Your task to perform on an android device: change timer sound Image 0: 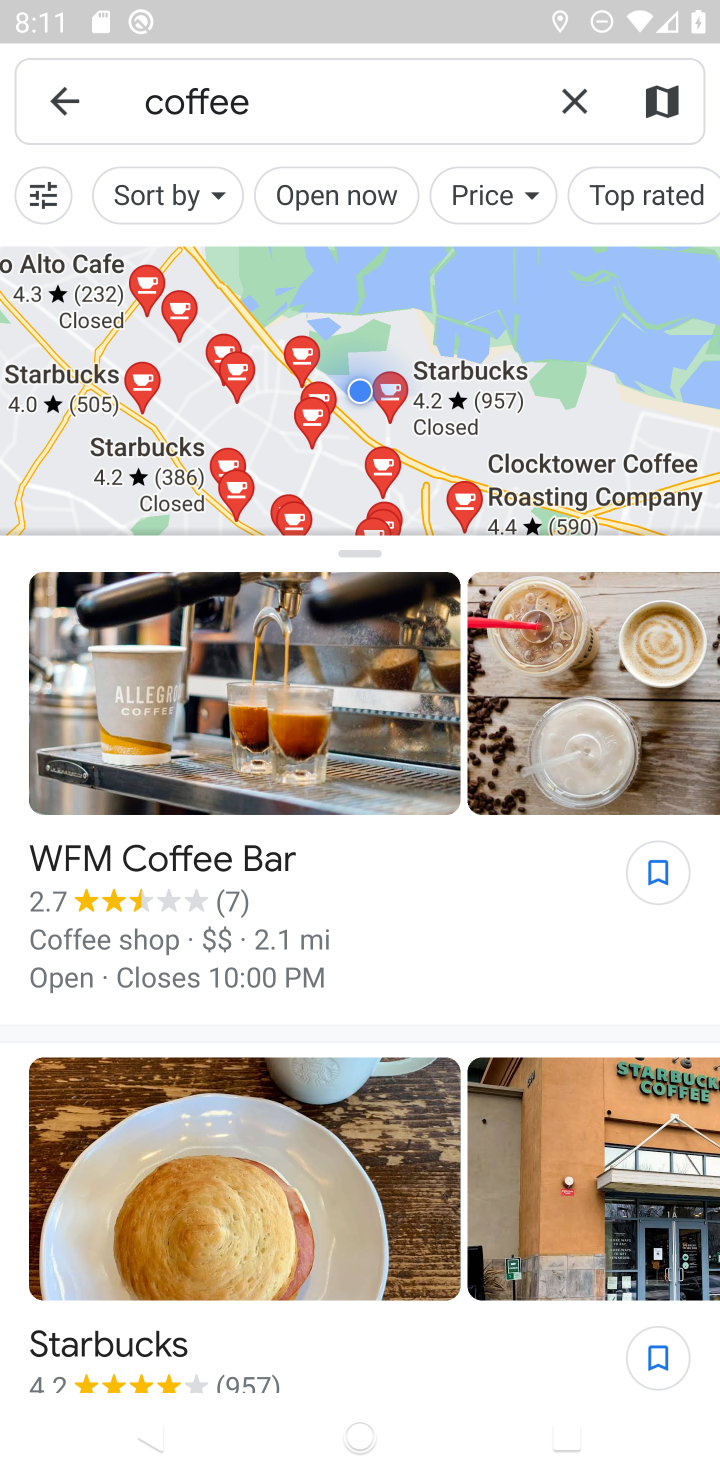
Step 0: press home button
Your task to perform on an android device: change timer sound Image 1: 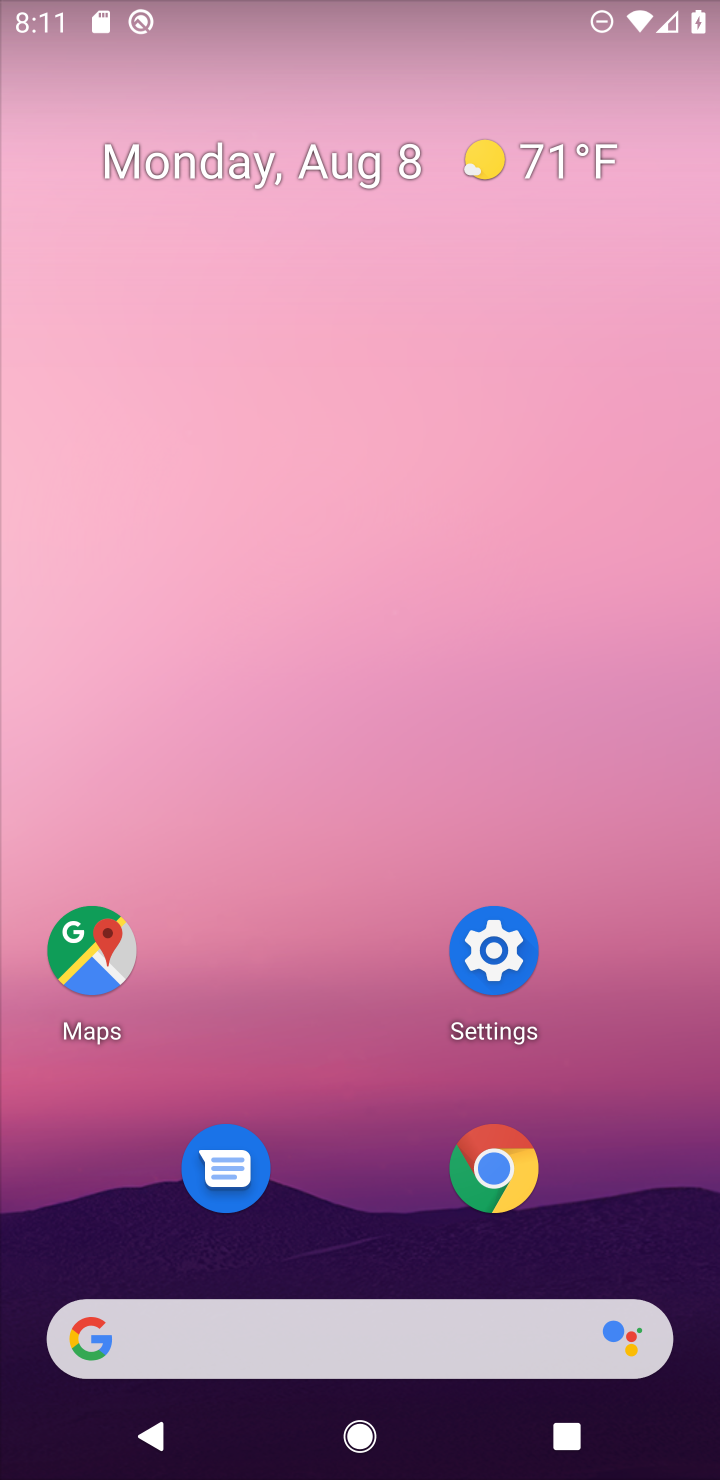
Step 1: drag from (332, 1321) to (524, 65)
Your task to perform on an android device: change timer sound Image 2: 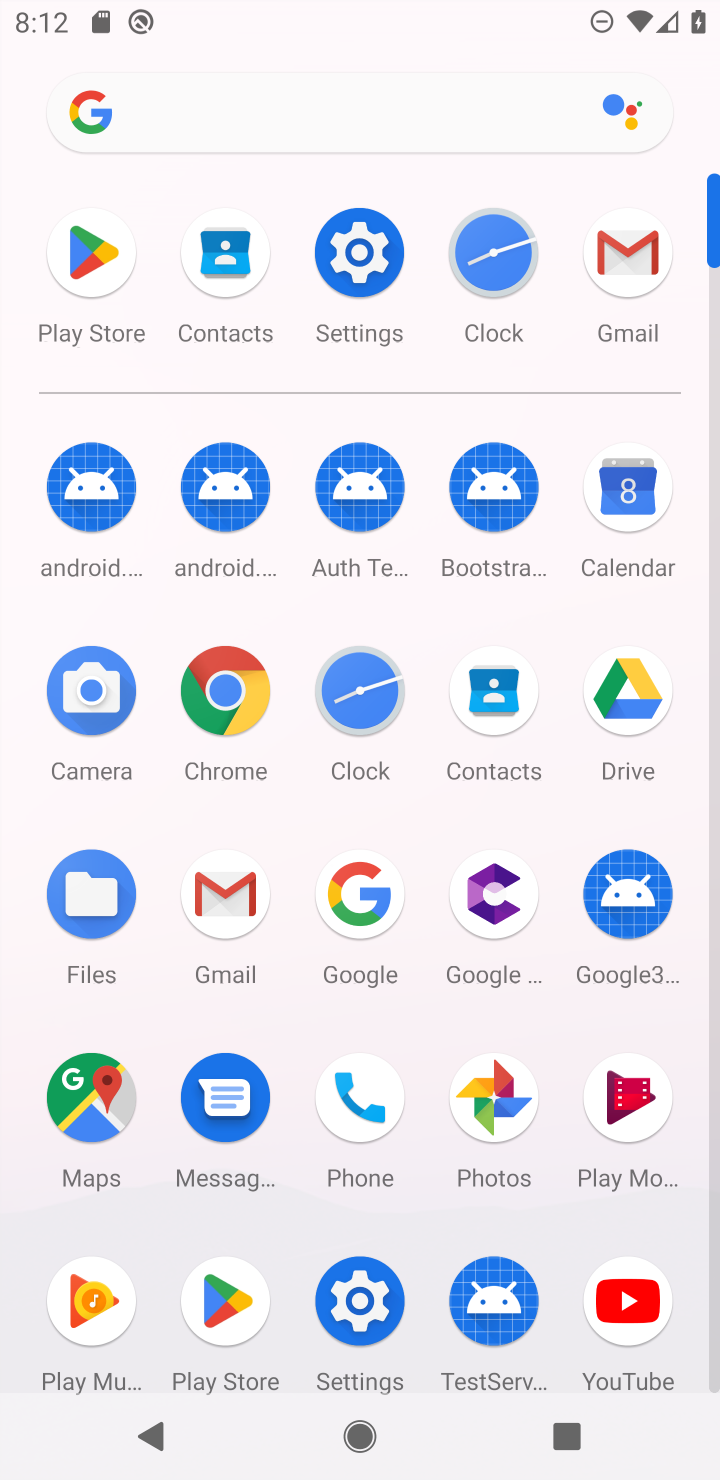
Step 2: click (361, 703)
Your task to perform on an android device: change timer sound Image 3: 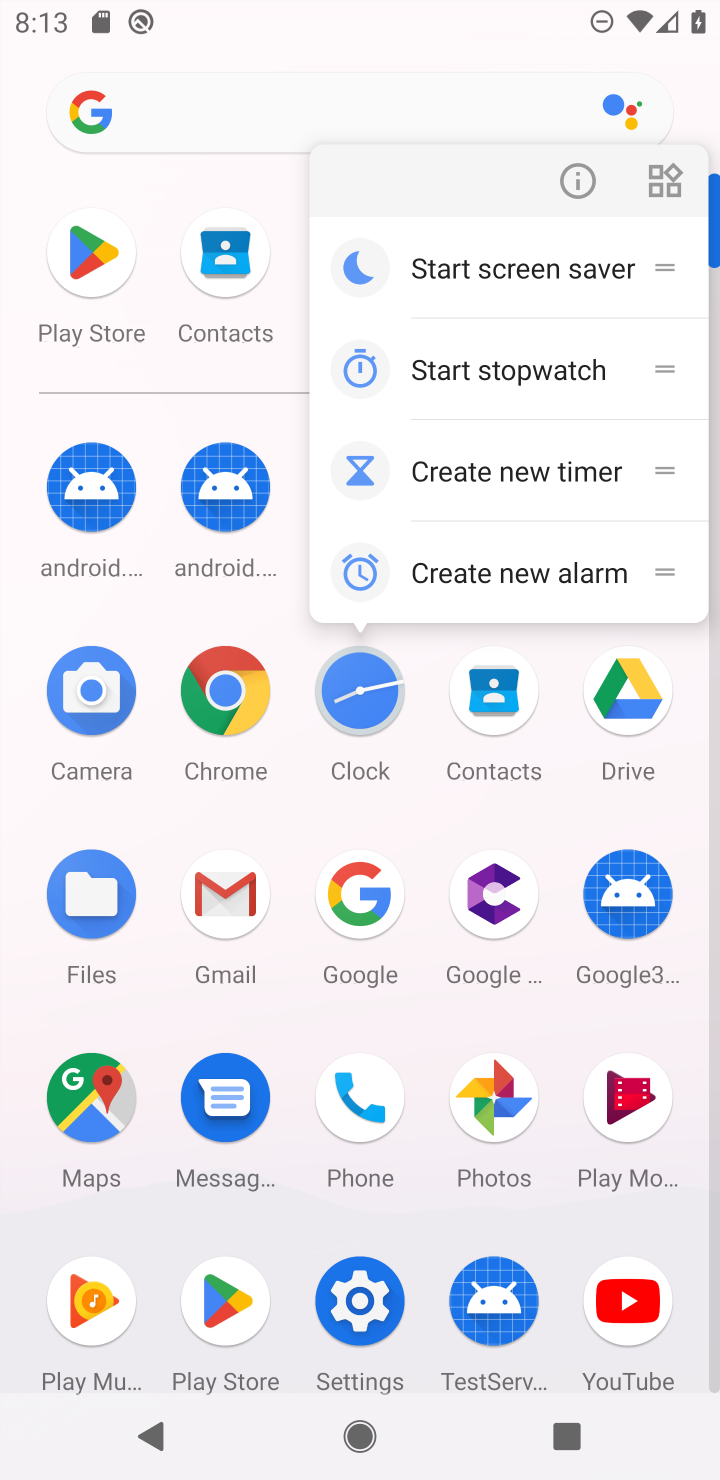
Step 3: click (358, 704)
Your task to perform on an android device: change timer sound Image 4: 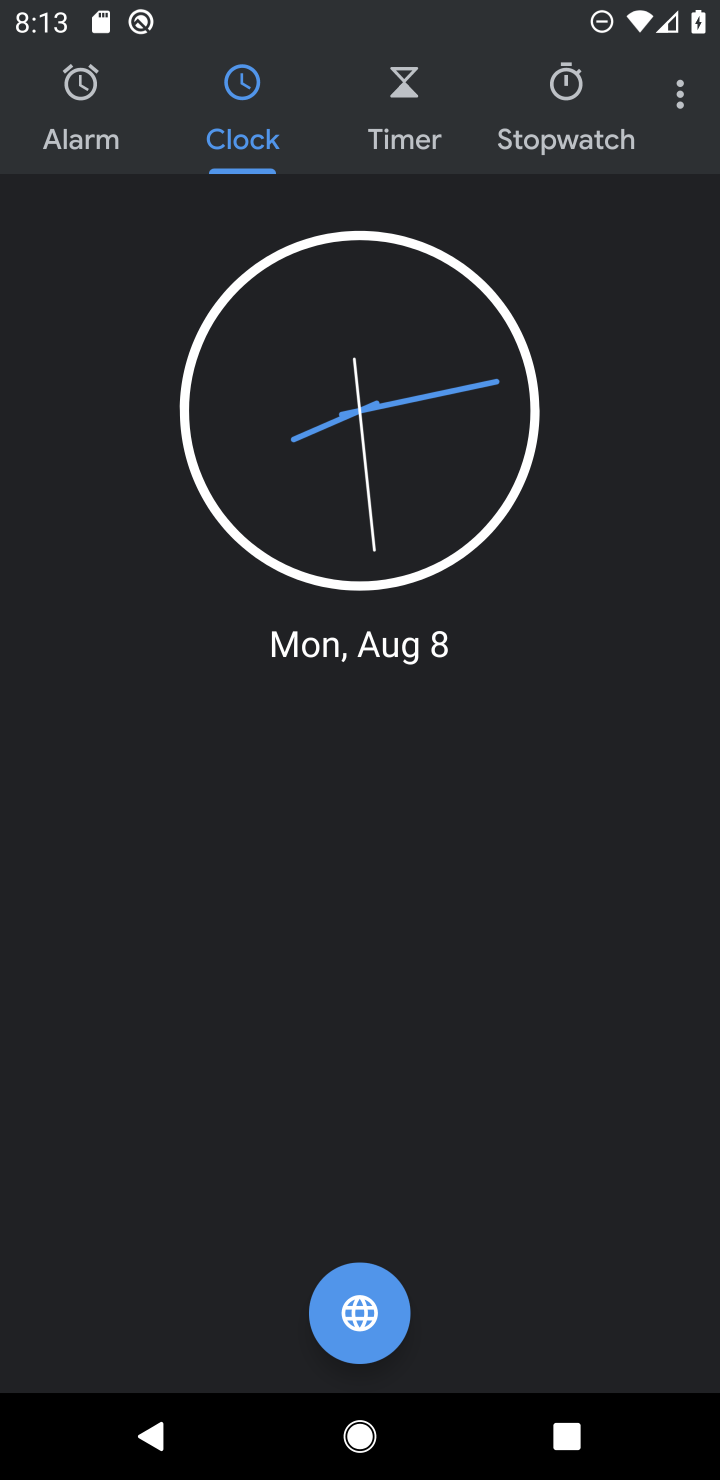
Step 4: click (678, 90)
Your task to perform on an android device: change timer sound Image 5: 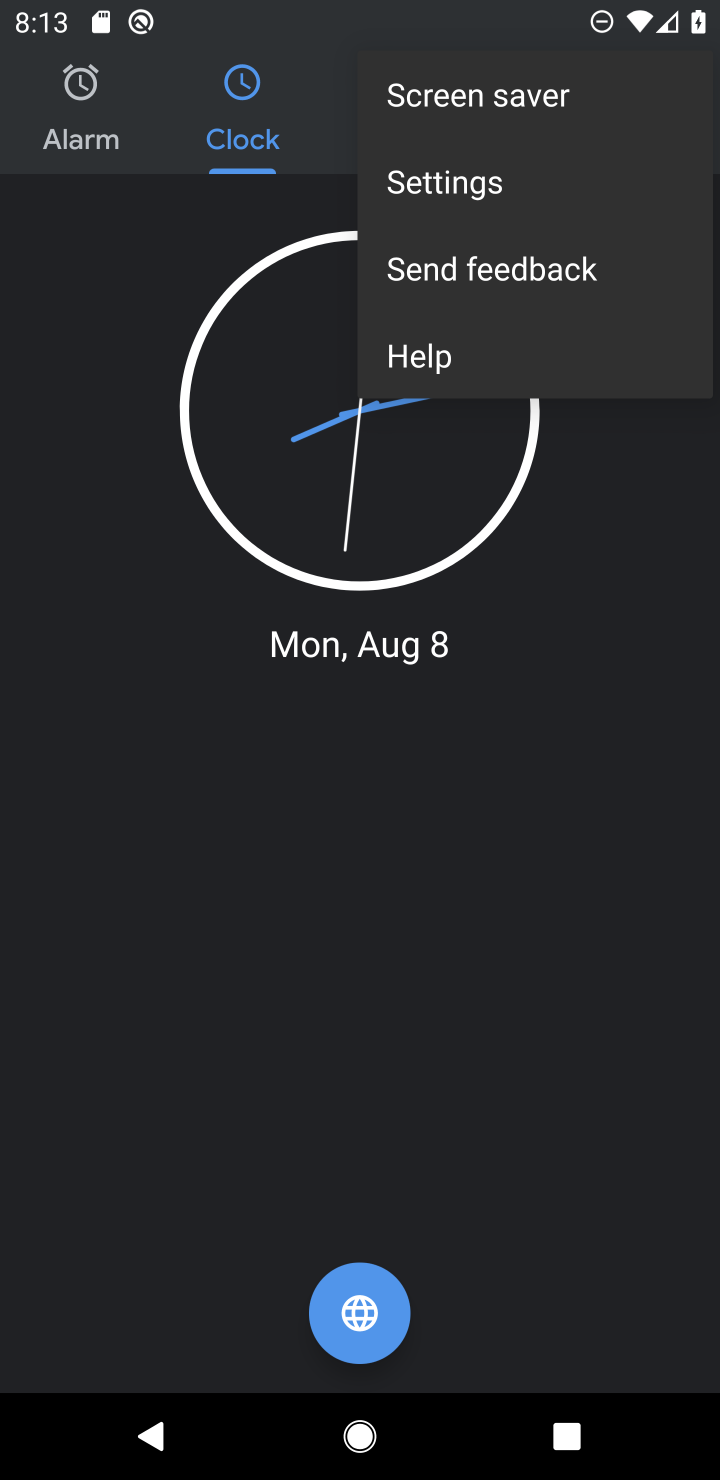
Step 5: click (485, 183)
Your task to perform on an android device: change timer sound Image 6: 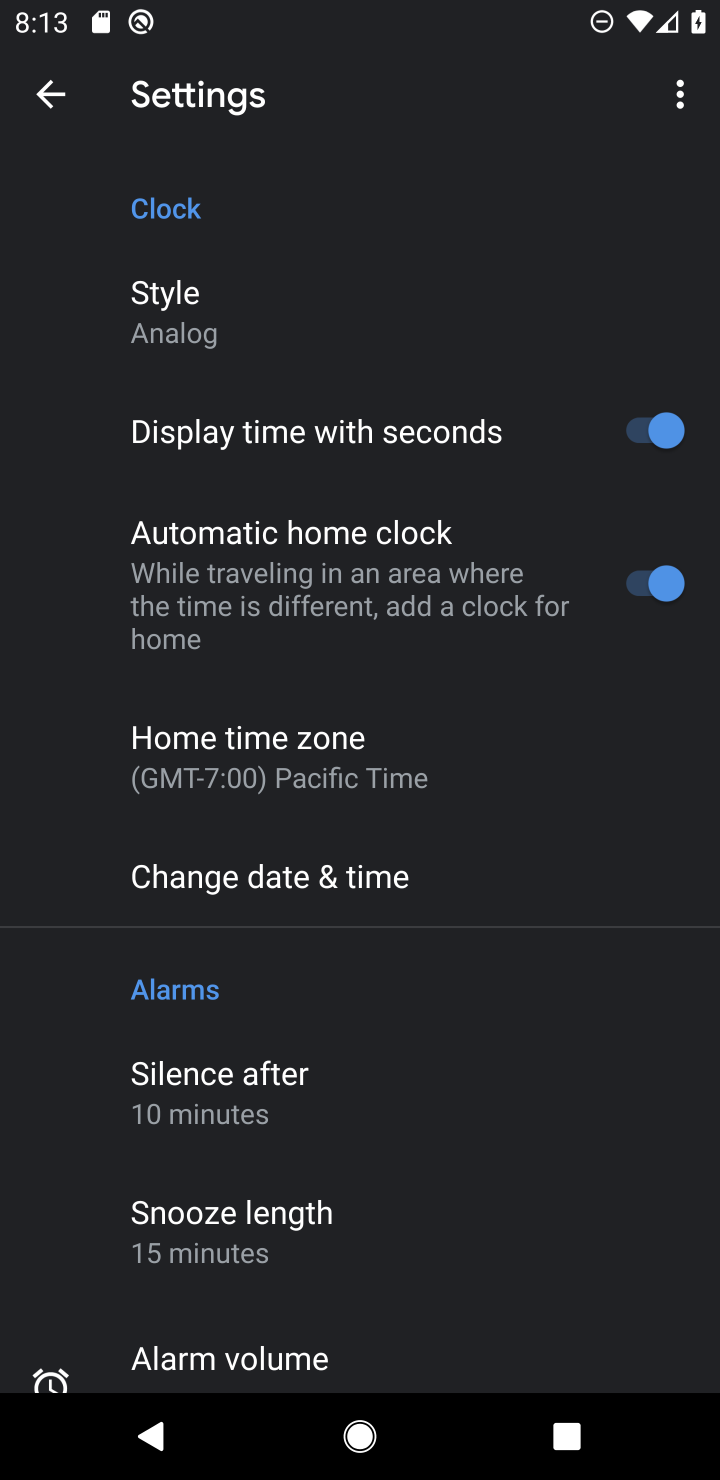
Step 6: drag from (340, 1255) to (550, 253)
Your task to perform on an android device: change timer sound Image 7: 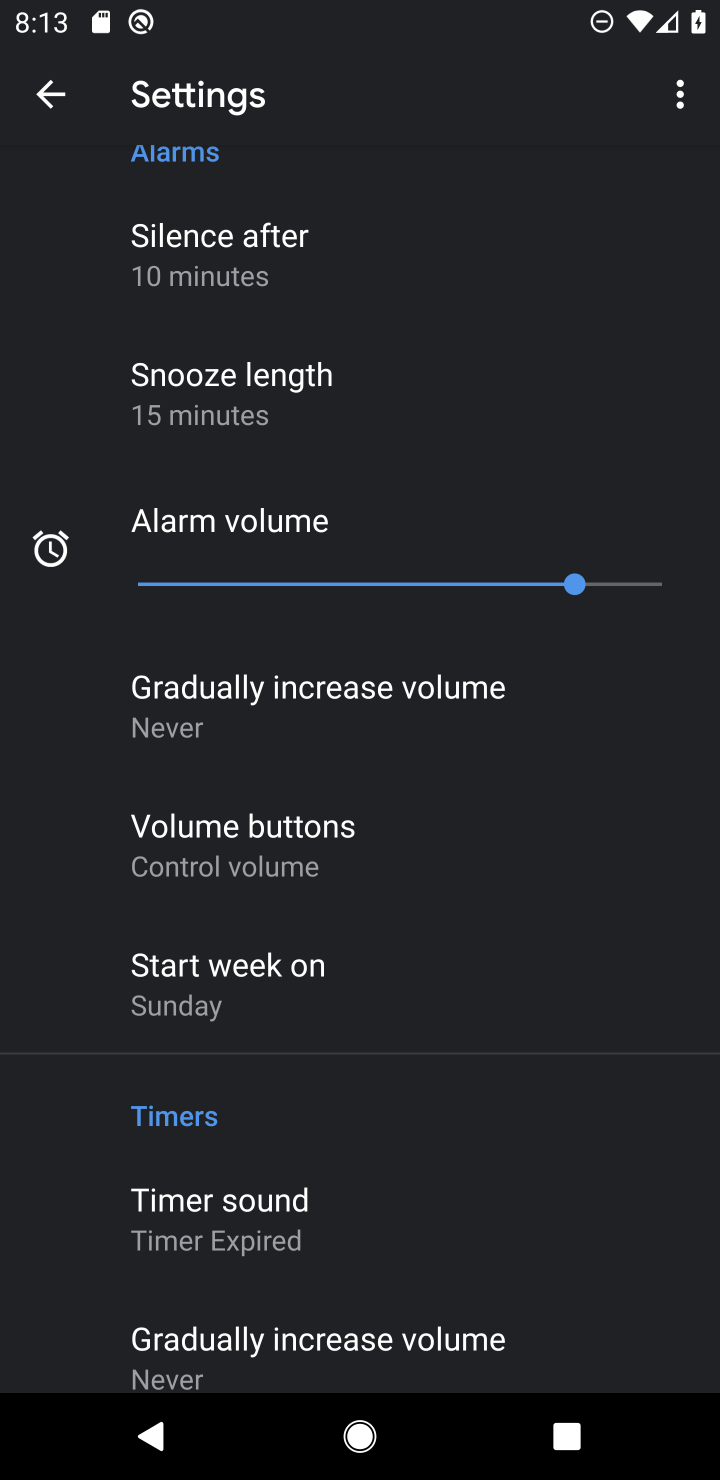
Step 7: click (301, 1235)
Your task to perform on an android device: change timer sound Image 8: 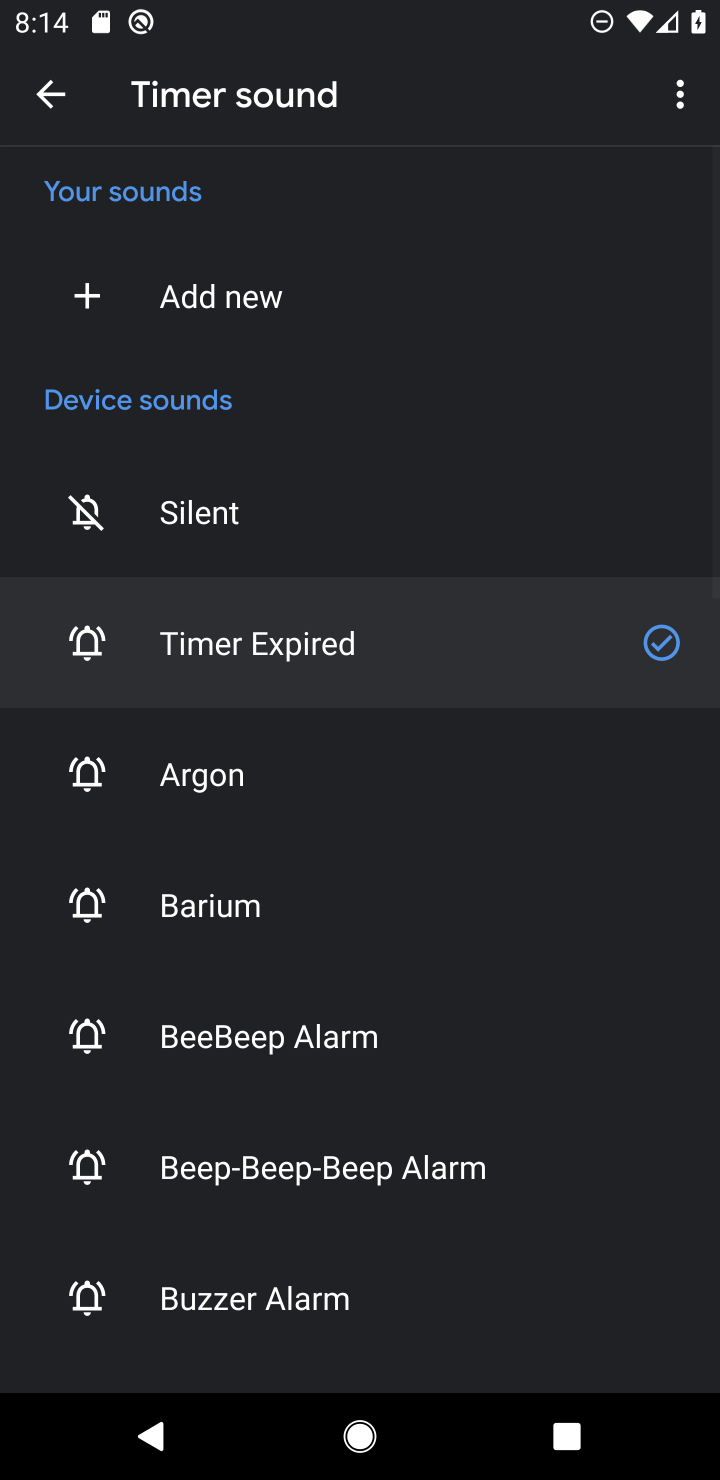
Step 8: click (232, 763)
Your task to perform on an android device: change timer sound Image 9: 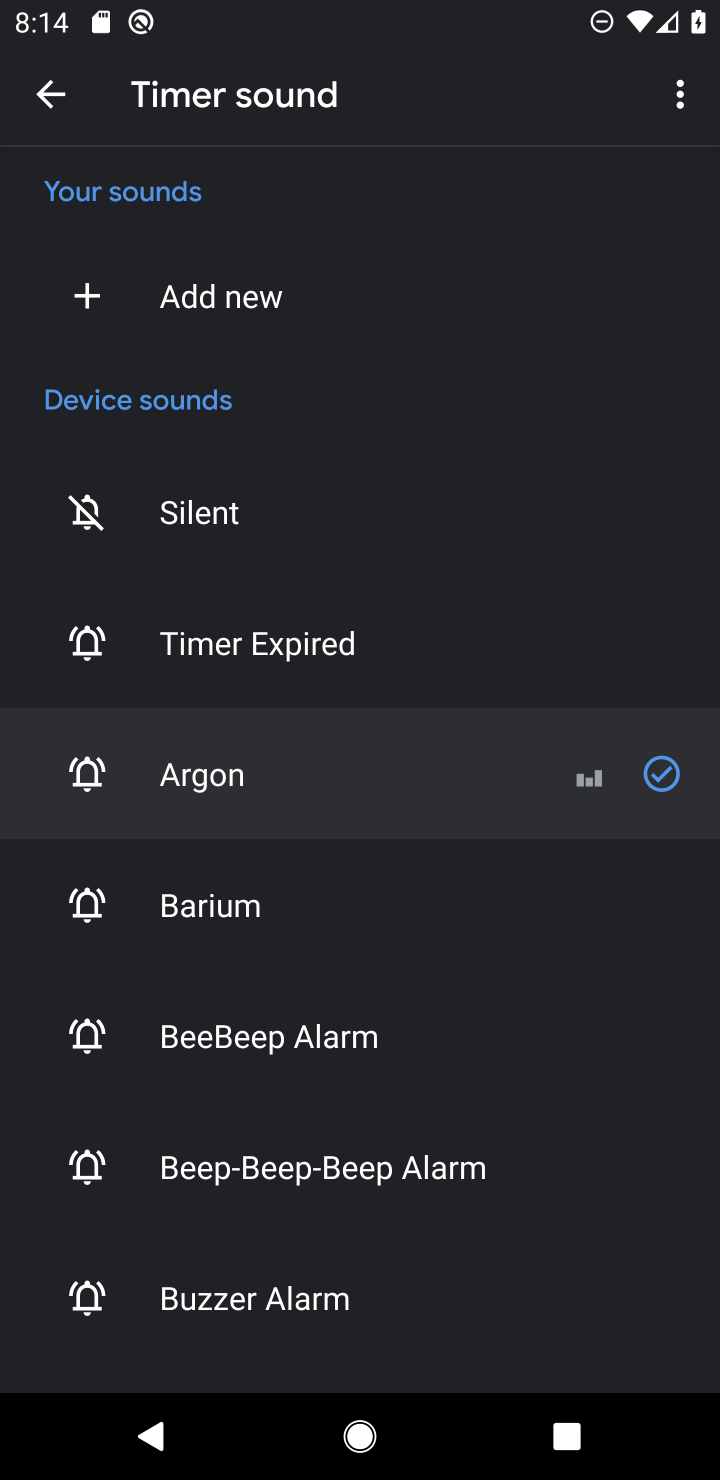
Step 9: task complete